Your task to perform on an android device: open a bookmark in the chrome app Image 0: 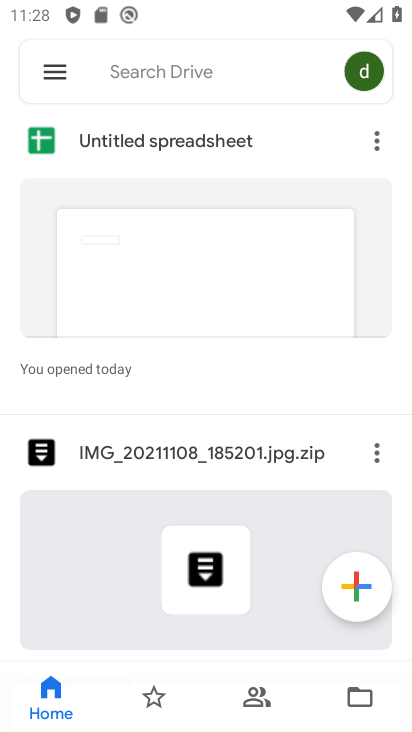
Step 0: press home button
Your task to perform on an android device: open a bookmark in the chrome app Image 1: 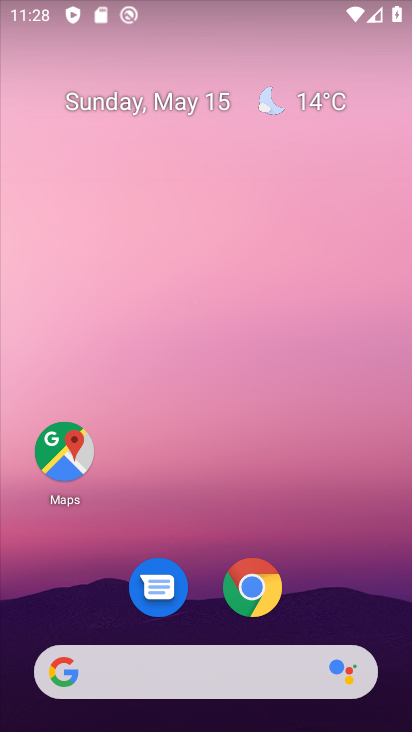
Step 1: click (238, 586)
Your task to perform on an android device: open a bookmark in the chrome app Image 2: 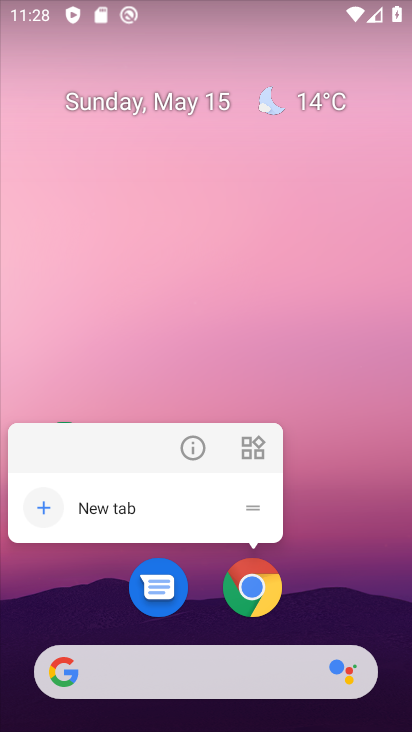
Step 2: click (238, 586)
Your task to perform on an android device: open a bookmark in the chrome app Image 3: 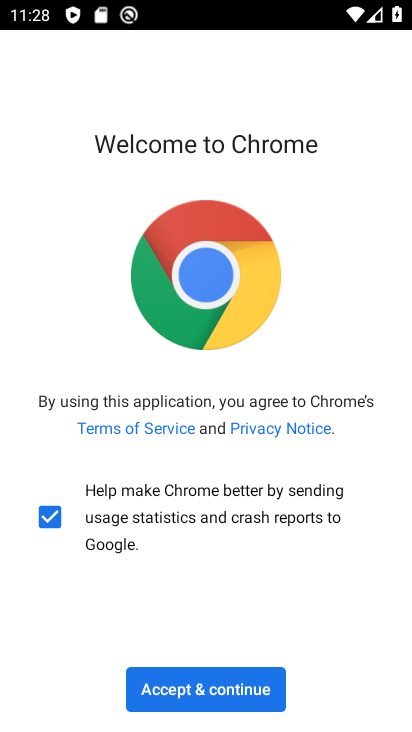
Step 3: click (169, 702)
Your task to perform on an android device: open a bookmark in the chrome app Image 4: 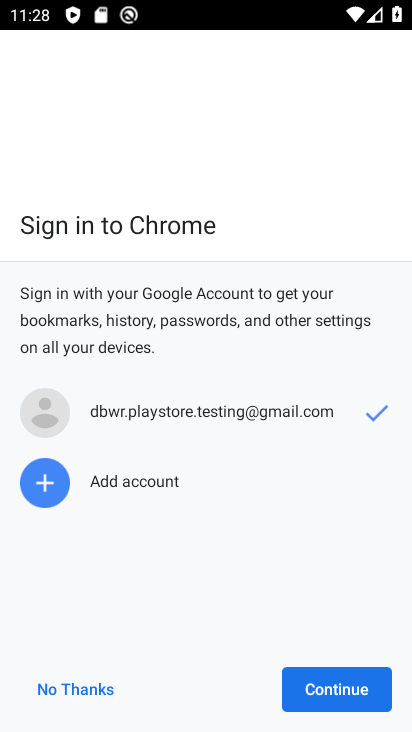
Step 4: click (357, 692)
Your task to perform on an android device: open a bookmark in the chrome app Image 5: 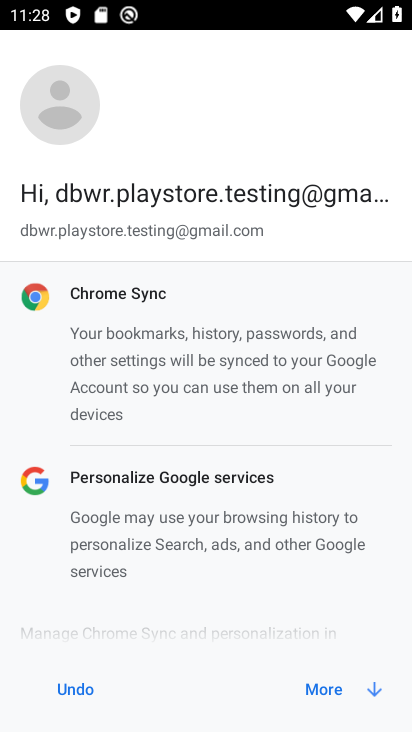
Step 5: click (358, 685)
Your task to perform on an android device: open a bookmark in the chrome app Image 6: 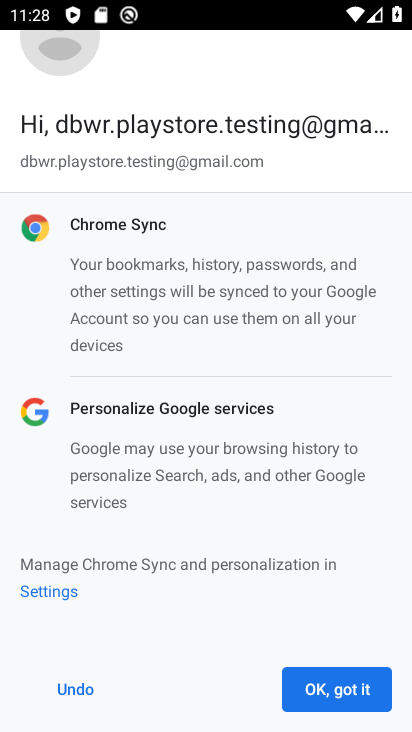
Step 6: click (360, 684)
Your task to perform on an android device: open a bookmark in the chrome app Image 7: 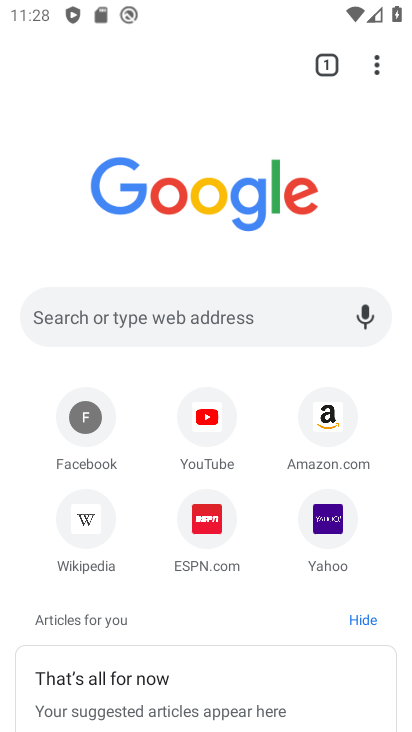
Step 7: click (374, 57)
Your task to perform on an android device: open a bookmark in the chrome app Image 8: 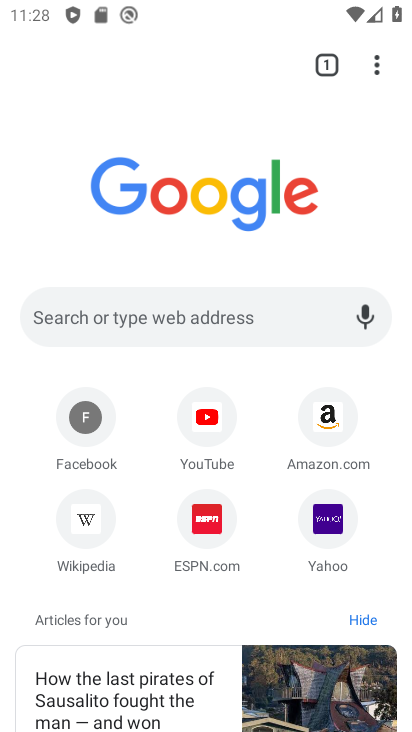
Step 8: click (379, 64)
Your task to perform on an android device: open a bookmark in the chrome app Image 9: 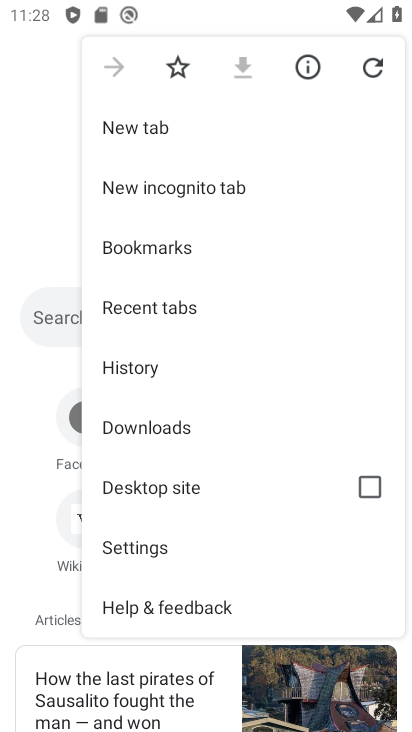
Step 9: click (160, 245)
Your task to perform on an android device: open a bookmark in the chrome app Image 10: 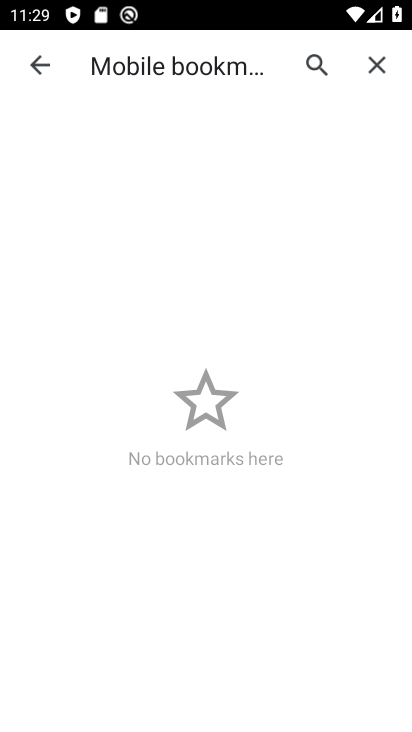
Step 10: task complete